Your task to perform on an android device: Set the phone to "Do not disturb". Image 0: 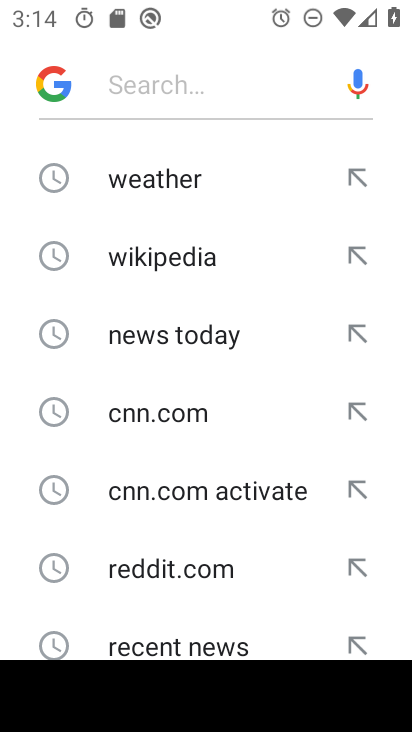
Step 0: press home button
Your task to perform on an android device: Set the phone to "Do not disturb". Image 1: 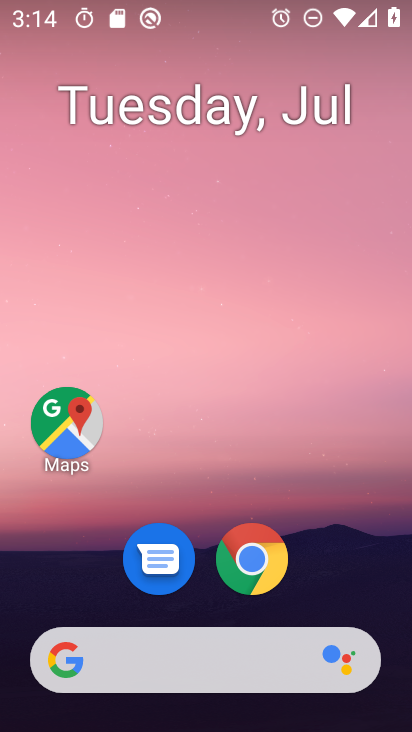
Step 1: drag from (357, 570) to (356, 161)
Your task to perform on an android device: Set the phone to "Do not disturb". Image 2: 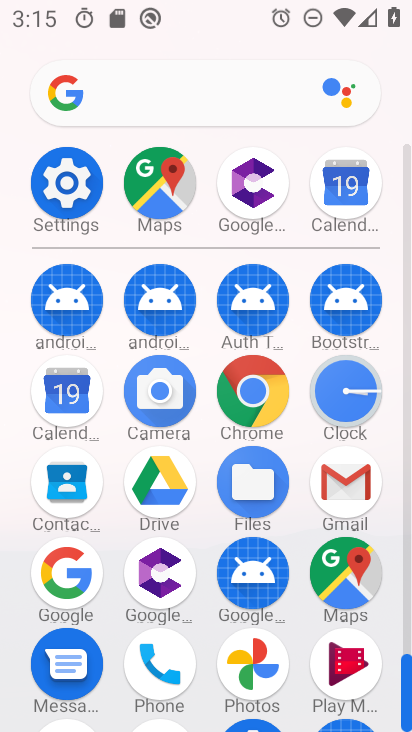
Step 2: click (70, 200)
Your task to perform on an android device: Set the phone to "Do not disturb". Image 3: 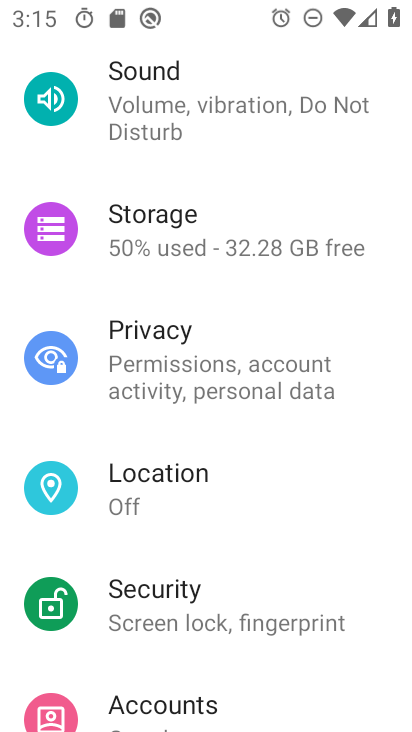
Step 3: drag from (385, 295) to (383, 398)
Your task to perform on an android device: Set the phone to "Do not disturb". Image 4: 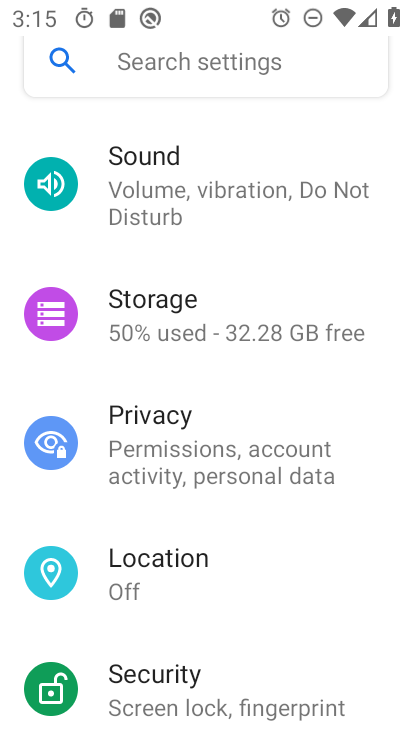
Step 4: drag from (373, 282) to (380, 439)
Your task to perform on an android device: Set the phone to "Do not disturb". Image 5: 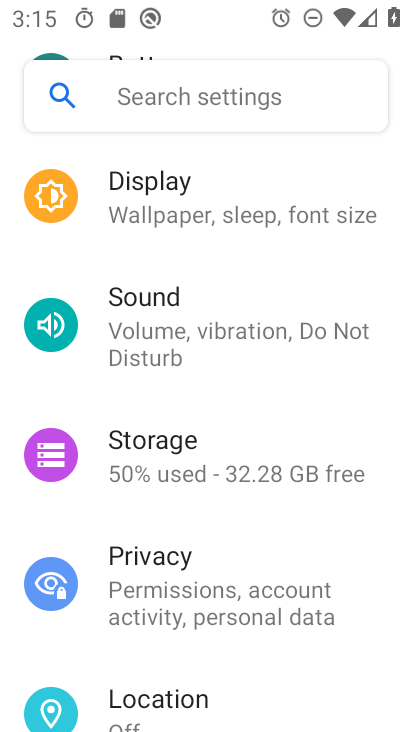
Step 5: click (344, 329)
Your task to perform on an android device: Set the phone to "Do not disturb". Image 6: 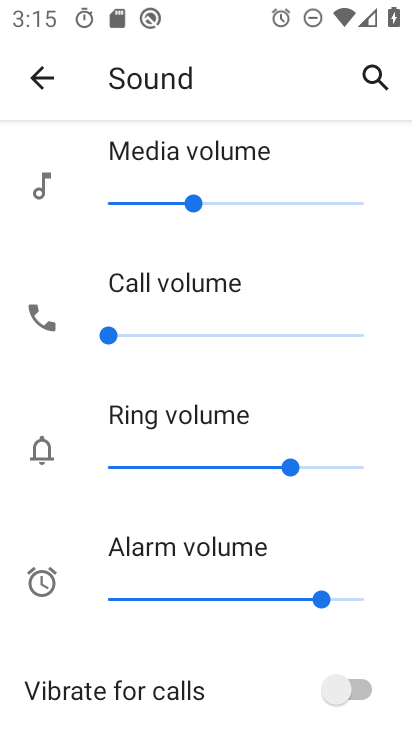
Step 6: drag from (356, 479) to (367, 389)
Your task to perform on an android device: Set the phone to "Do not disturb". Image 7: 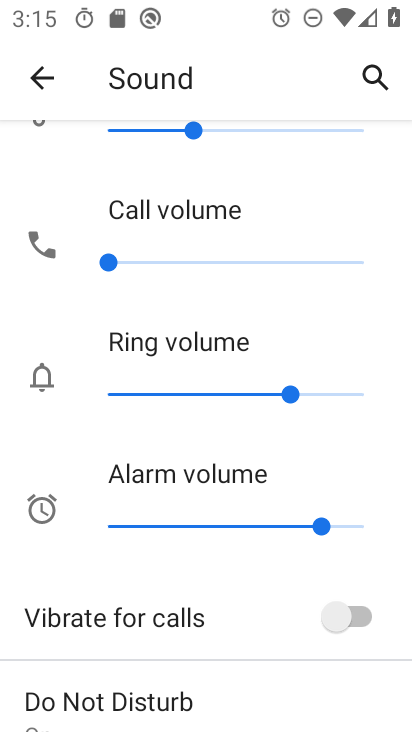
Step 7: drag from (371, 498) to (402, 237)
Your task to perform on an android device: Set the phone to "Do not disturb". Image 8: 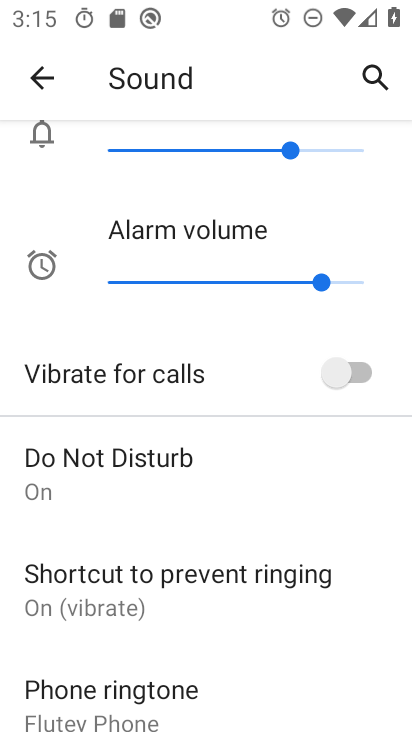
Step 8: click (179, 480)
Your task to perform on an android device: Set the phone to "Do not disturb". Image 9: 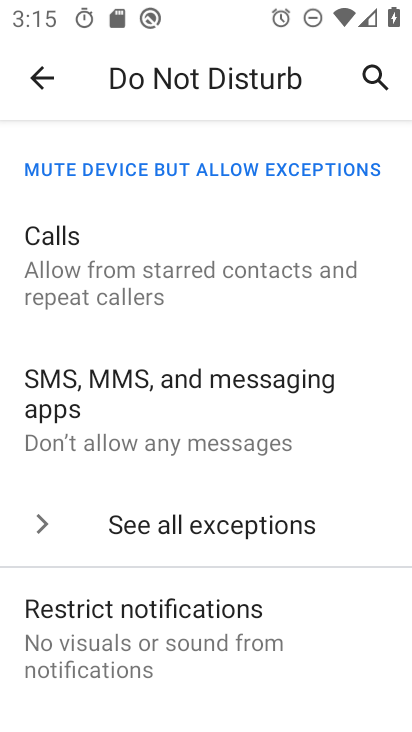
Step 9: task complete